Your task to perform on an android device: set default search engine in the chrome app Image 0: 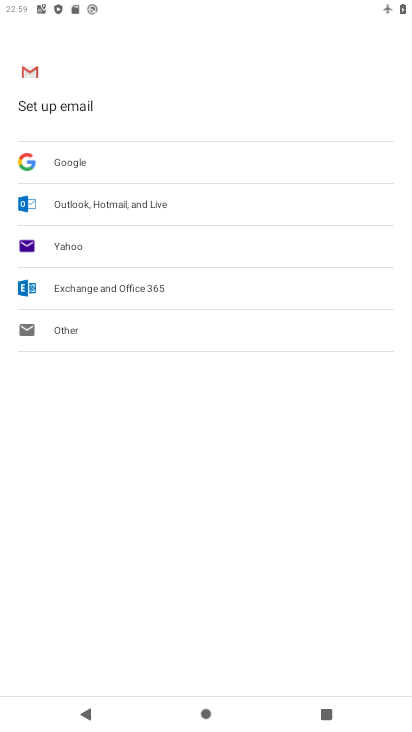
Step 0: press home button
Your task to perform on an android device: set default search engine in the chrome app Image 1: 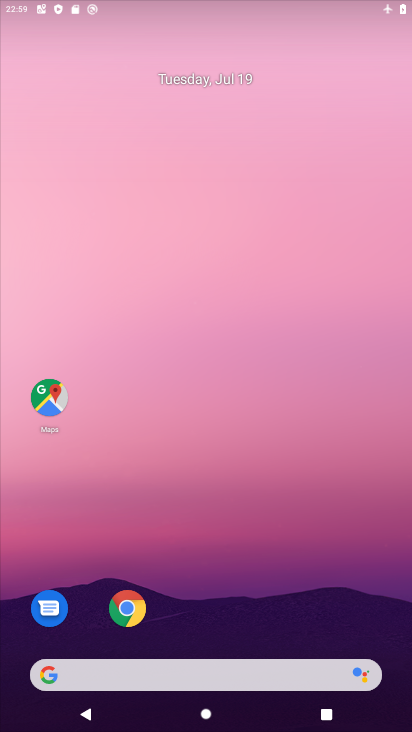
Step 1: drag from (285, 621) to (262, 39)
Your task to perform on an android device: set default search engine in the chrome app Image 2: 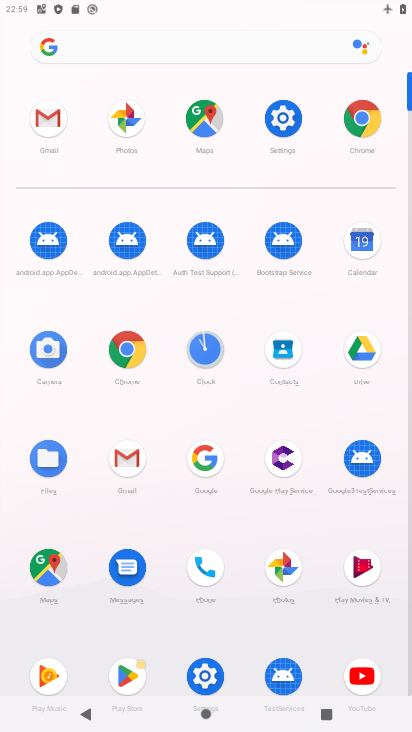
Step 2: click (362, 118)
Your task to perform on an android device: set default search engine in the chrome app Image 3: 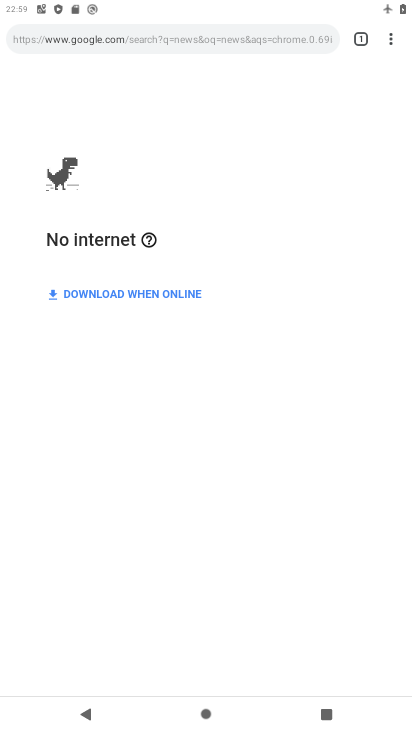
Step 3: drag from (396, 35) to (276, 435)
Your task to perform on an android device: set default search engine in the chrome app Image 4: 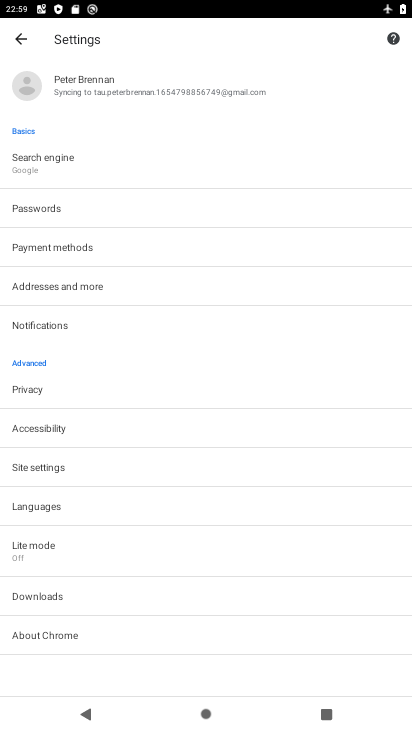
Step 4: click (71, 165)
Your task to perform on an android device: set default search engine in the chrome app Image 5: 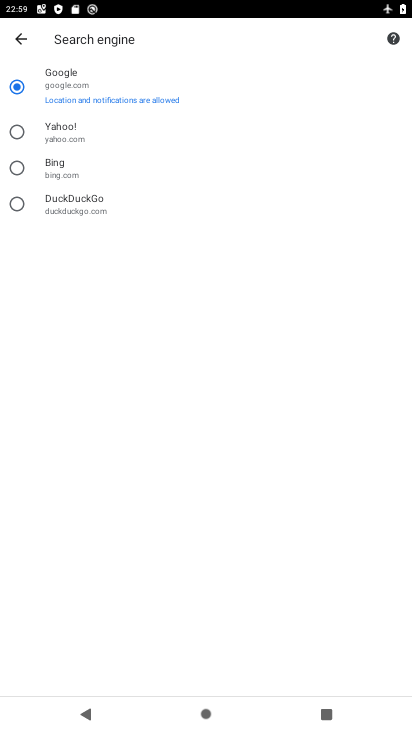
Step 5: task complete